Your task to perform on an android device: Search for vegetarian restaurants on Maps Image 0: 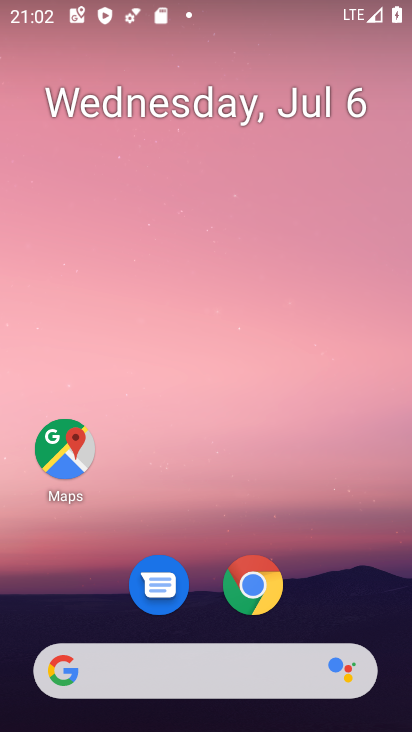
Step 0: drag from (261, 486) to (231, 135)
Your task to perform on an android device: Search for vegetarian restaurants on Maps Image 1: 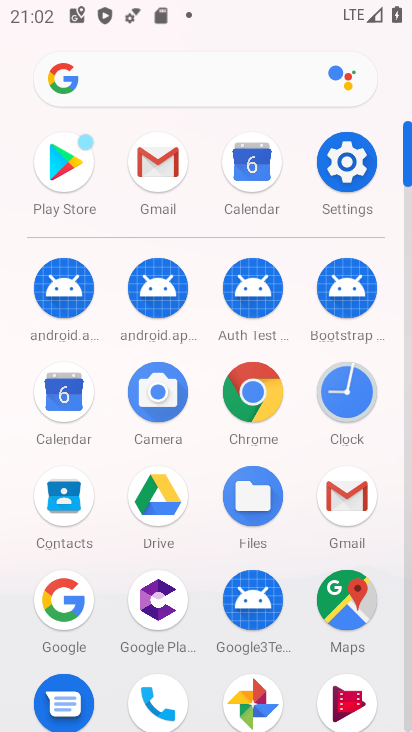
Step 1: click (340, 591)
Your task to perform on an android device: Search for vegetarian restaurants on Maps Image 2: 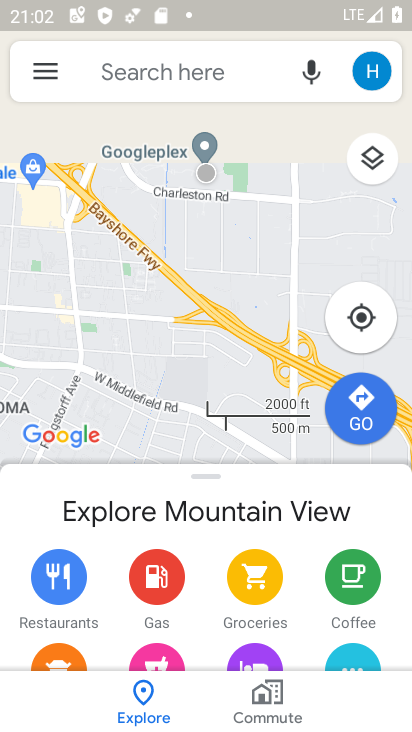
Step 2: click (156, 59)
Your task to perform on an android device: Search for vegetarian restaurants on Maps Image 3: 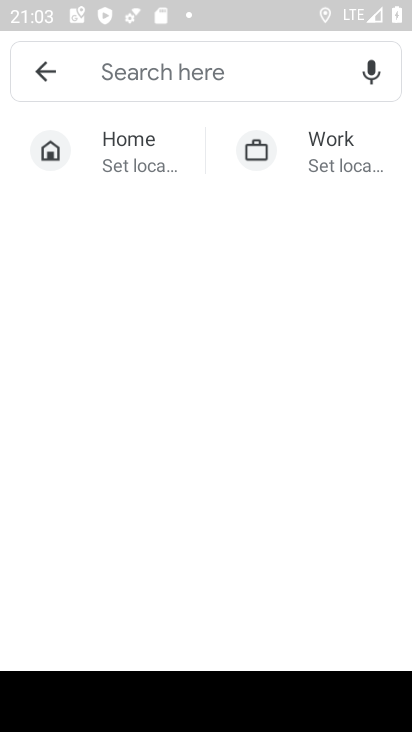
Step 3: type "vegetarian restaurants"
Your task to perform on an android device: Search for vegetarian restaurants on Maps Image 4: 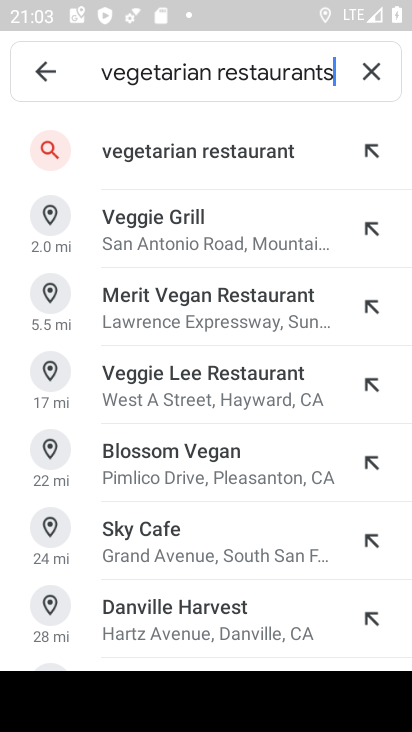
Step 4: click (247, 151)
Your task to perform on an android device: Search for vegetarian restaurants on Maps Image 5: 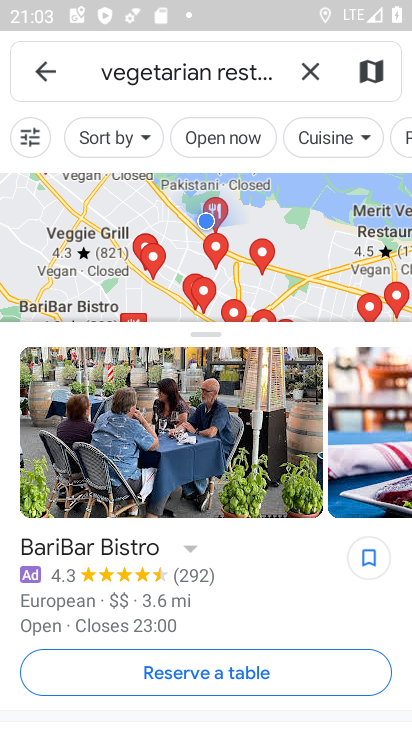
Step 5: task complete